Your task to perform on an android device: turn on the 12-hour format for clock Image 0: 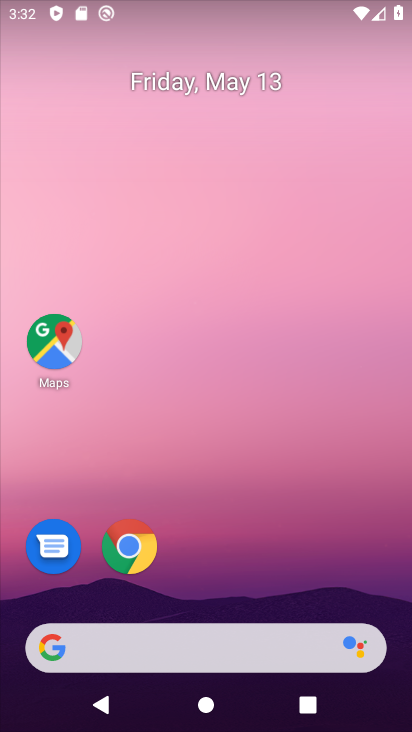
Step 0: drag from (186, 717) to (191, 159)
Your task to perform on an android device: turn on the 12-hour format for clock Image 1: 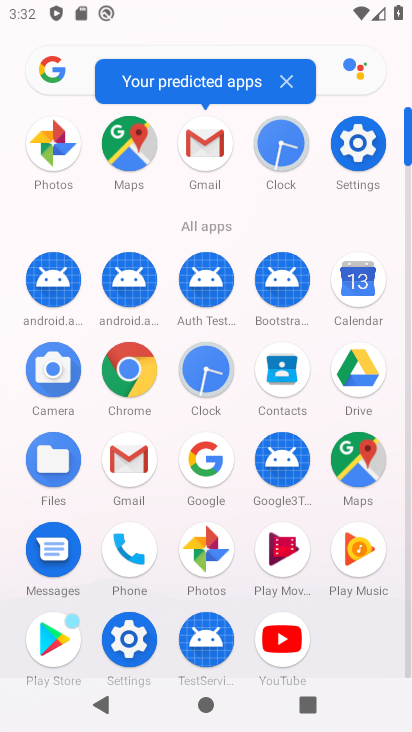
Step 1: click (203, 371)
Your task to perform on an android device: turn on the 12-hour format for clock Image 2: 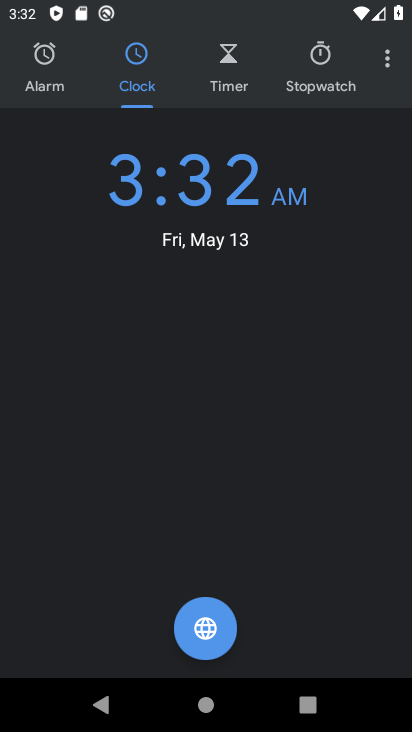
Step 2: click (390, 65)
Your task to perform on an android device: turn on the 12-hour format for clock Image 3: 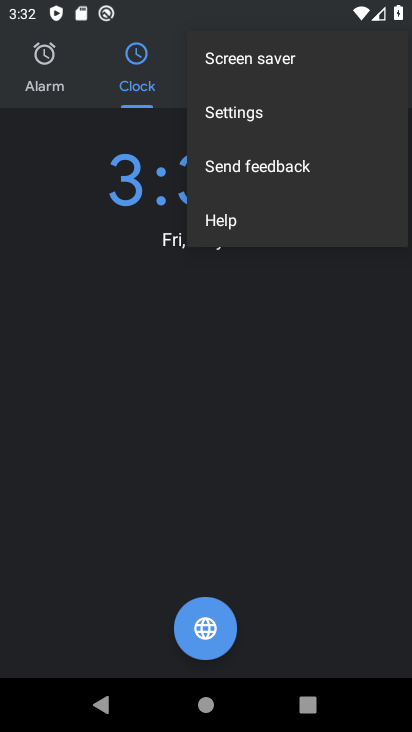
Step 3: click (246, 116)
Your task to perform on an android device: turn on the 12-hour format for clock Image 4: 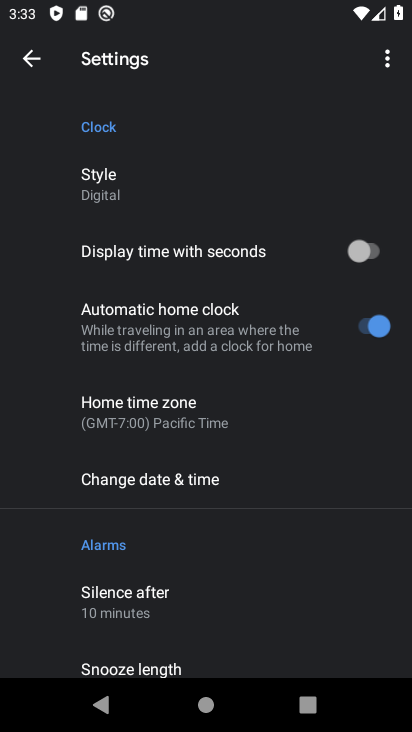
Step 4: click (174, 481)
Your task to perform on an android device: turn on the 12-hour format for clock Image 5: 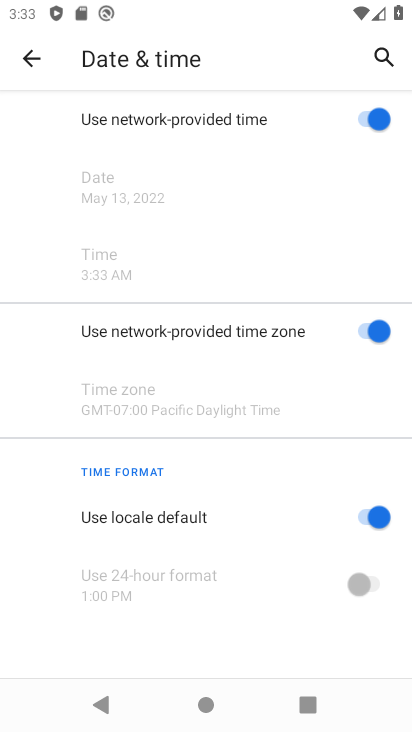
Step 5: task complete